Your task to perform on an android device: Open sound settings Image 0: 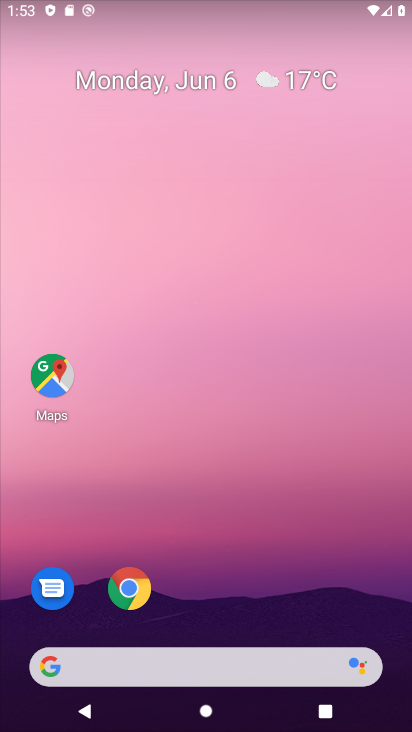
Step 0: drag from (244, 650) to (192, 13)
Your task to perform on an android device: Open sound settings Image 1: 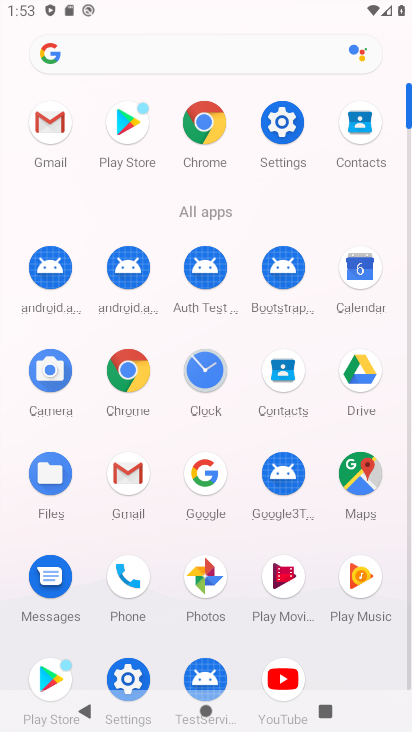
Step 1: click (273, 123)
Your task to perform on an android device: Open sound settings Image 2: 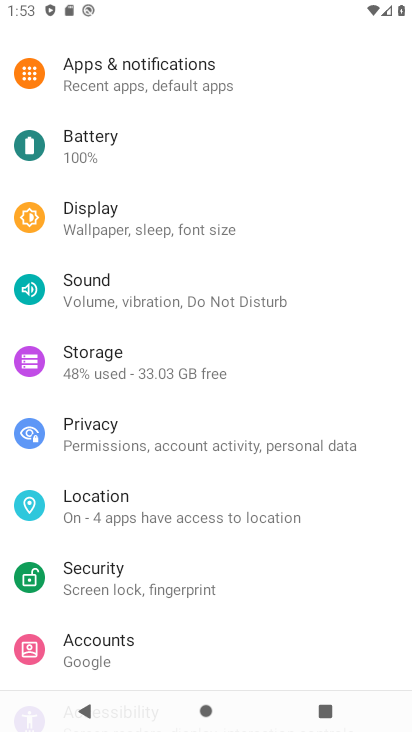
Step 2: click (92, 295)
Your task to perform on an android device: Open sound settings Image 3: 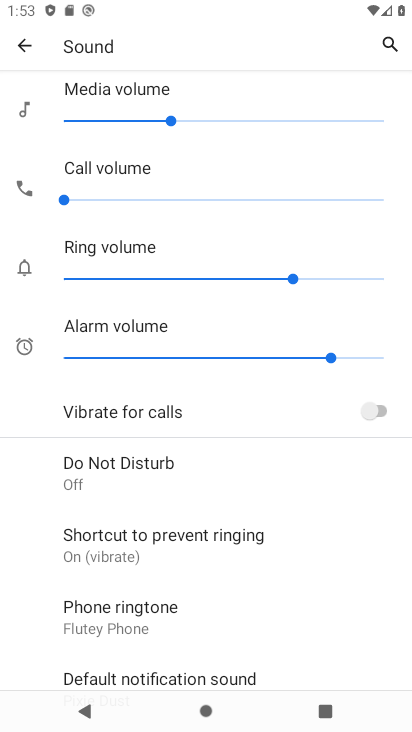
Step 3: task complete